Your task to perform on an android device: turn off improve location accuracy Image 0: 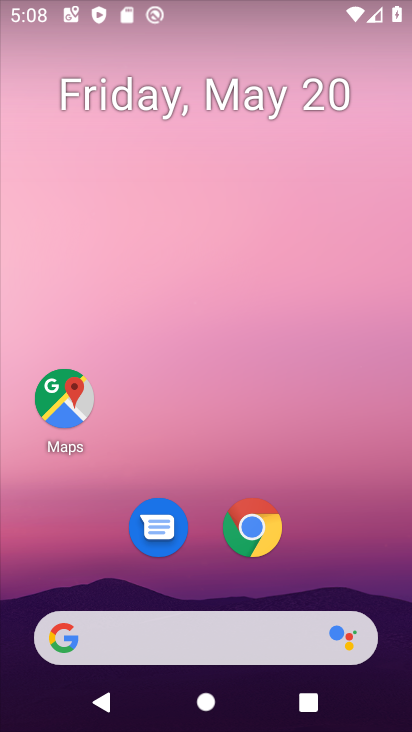
Step 0: drag from (280, 584) to (291, 12)
Your task to perform on an android device: turn off improve location accuracy Image 1: 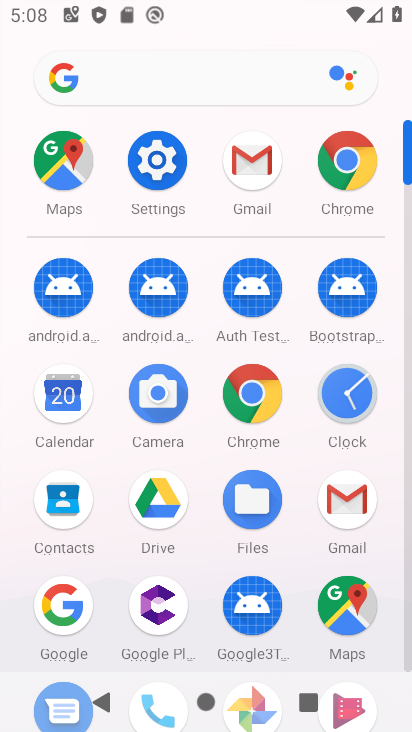
Step 1: click (178, 173)
Your task to perform on an android device: turn off improve location accuracy Image 2: 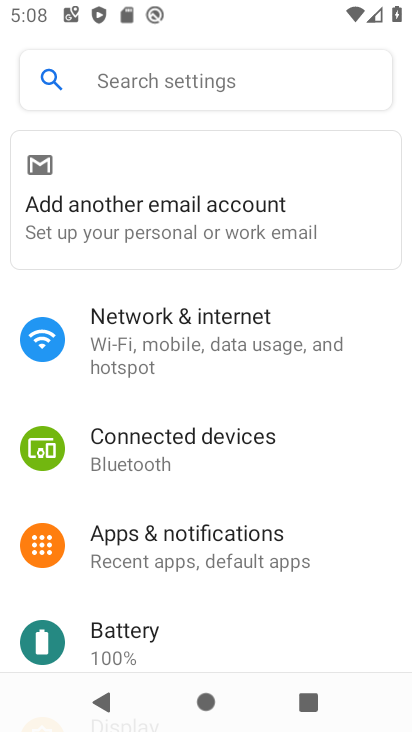
Step 2: drag from (229, 613) to (193, 170)
Your task to perform on an android device: turn off improve location accuracy Image 3: 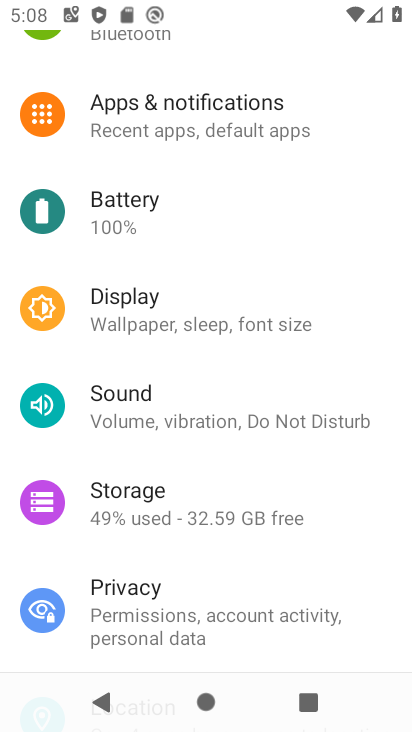
Step 3: drag from (187, 569) to (208, 209)
Your task to perform on an android device: turn off improve location accuracy Image 4: 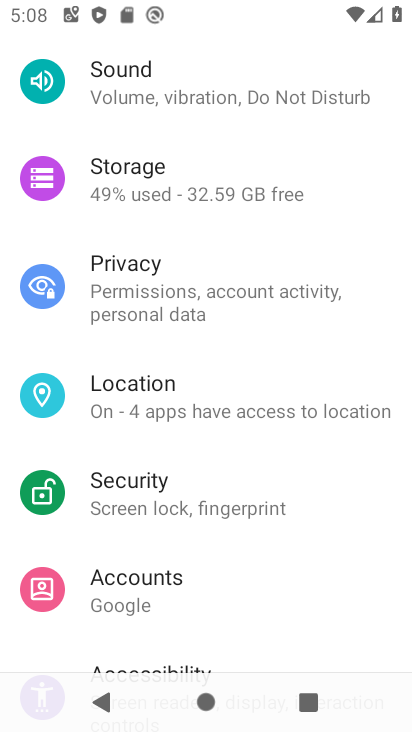
Step 4: click (217, 403)
Your task to perform on an android device: turn off improve location accuracy Image 5: 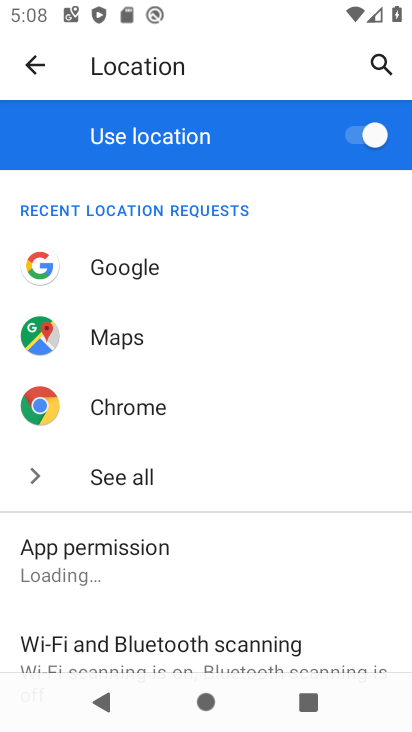
Step 5: drag from (240, 619) to (249, 99)
Your task to perform on an android device: turn off improve location accuracy Image 6: 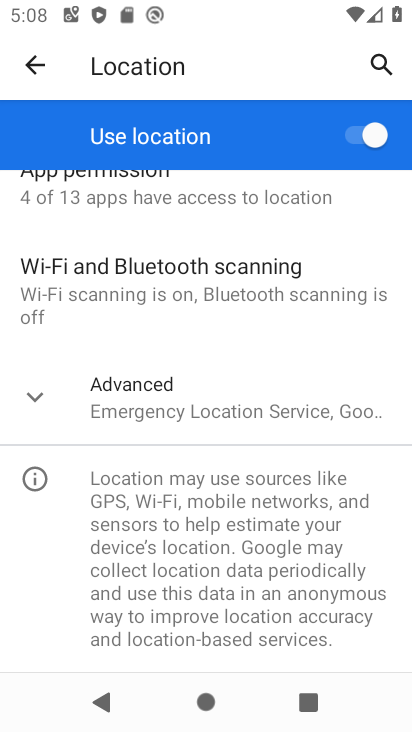
Step 6: click (217, 387)
Your task to perform on an android device: turn off improve location accuracy Image 7: 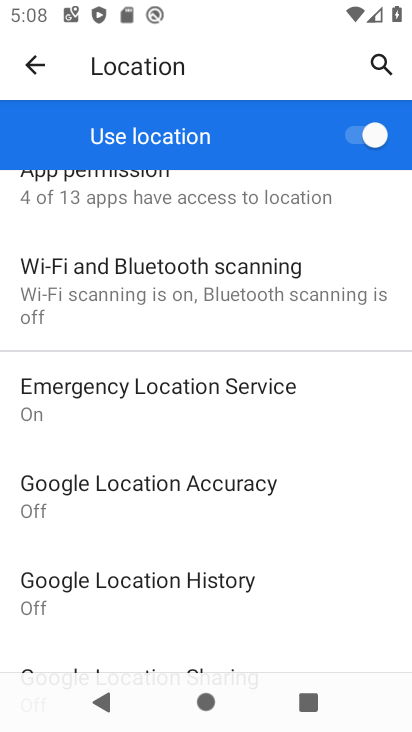
Step 7: click (259, 487)
Your task to perform on an android device: turn off improve location accuracy Image 8: 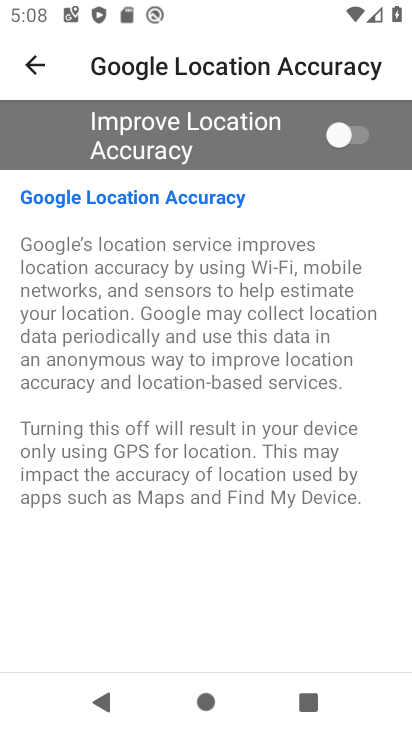
Step 8: task complete